Your task to perform on an android device: Add "alienware aurora" to the cart on walmart Image 0: 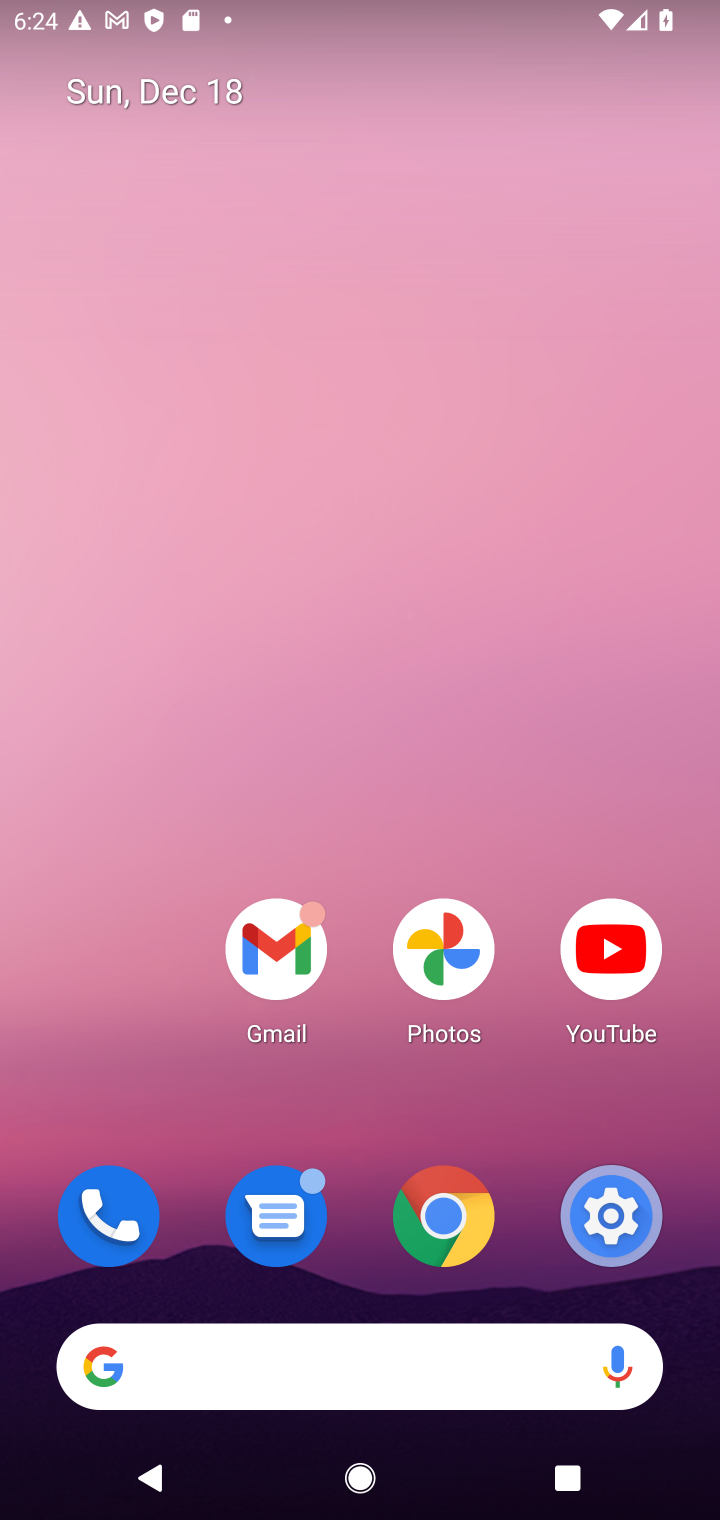
Step 0: task complete